Your task to perform on an android device: open app "Adobe Express: Graphic Design" Image 0: 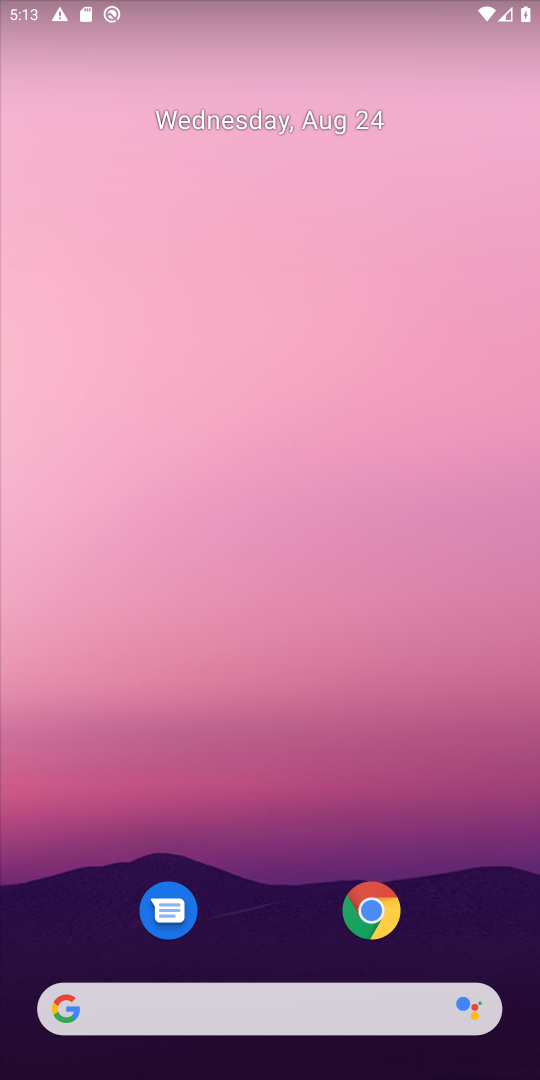
Step 0: drag from (273, 980) to (173, 157)
Your task to perform on an android device: open app "Adobe Express: Graphic Design" Image 1: 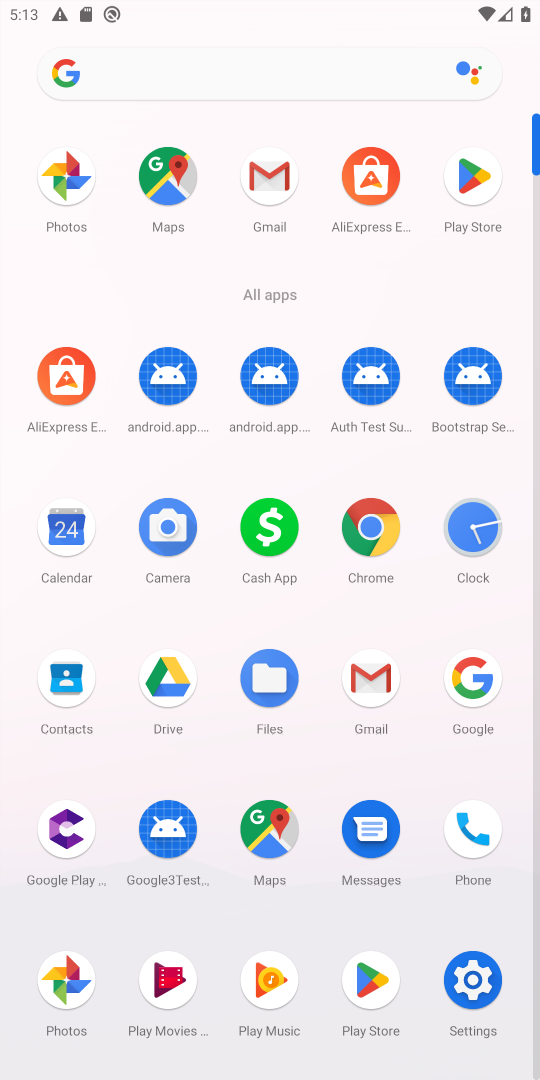
Step 1: click (458, 206)
Your task to perform on an android device: open app "Adobe Express: Graphic Design" Image 2: 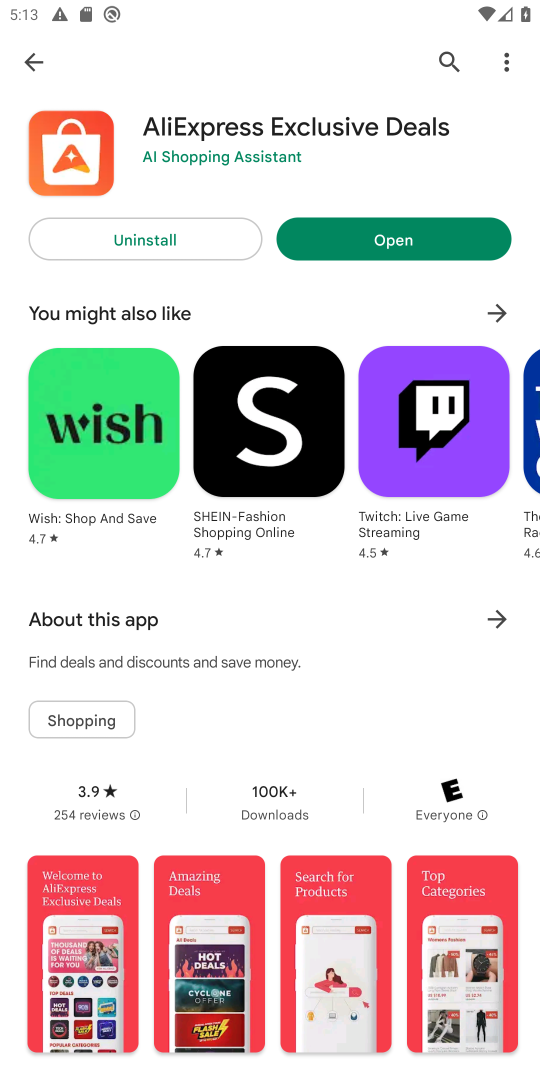
Step 2: click (448, 69)
Your task to perform on an android device: open app "Adobe Express: Graphic Design" Image 3: 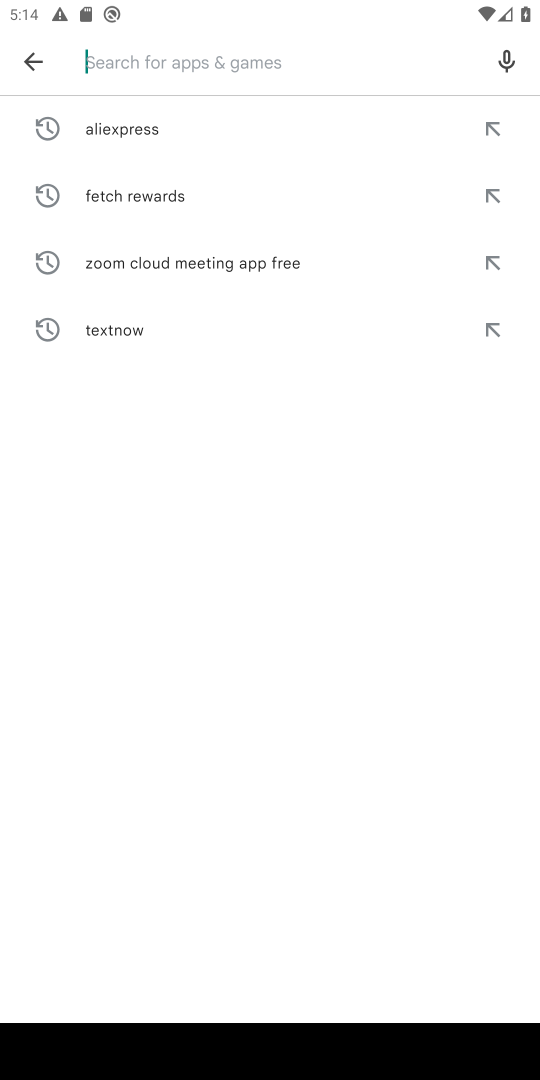
Step 3: type "adobe express"
Your task to perform on an android device: open app "Adobe Express: Graphic Design" Image 4: 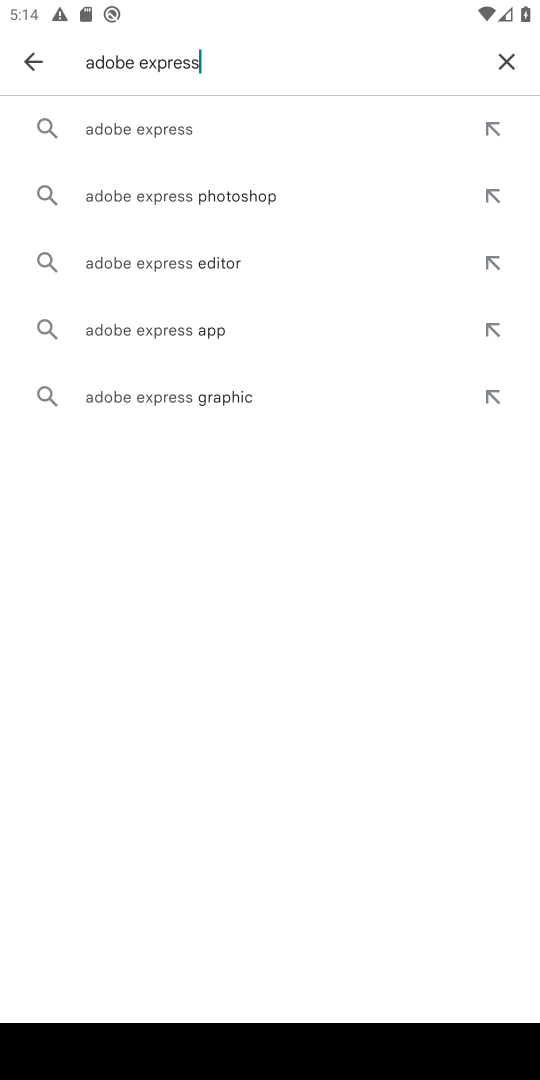
Step 4: click (154, 123)
Your task to perform on an android device: open app "Adobe Express: Graphic Design" Image 5: 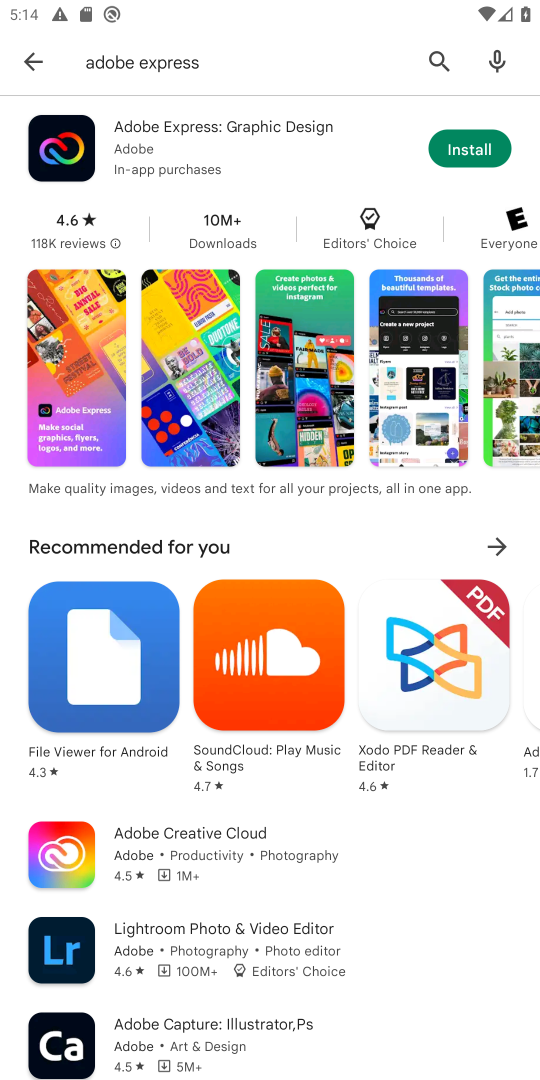
Step 5: task complete